Your task to perform on an android device: Check the news Image 0: 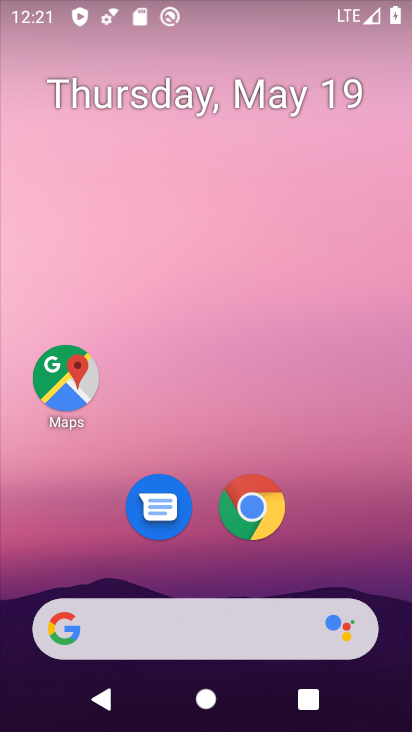
Step 0: click (192, 643)
Your task to perform on an android device: Check the news Image 1: 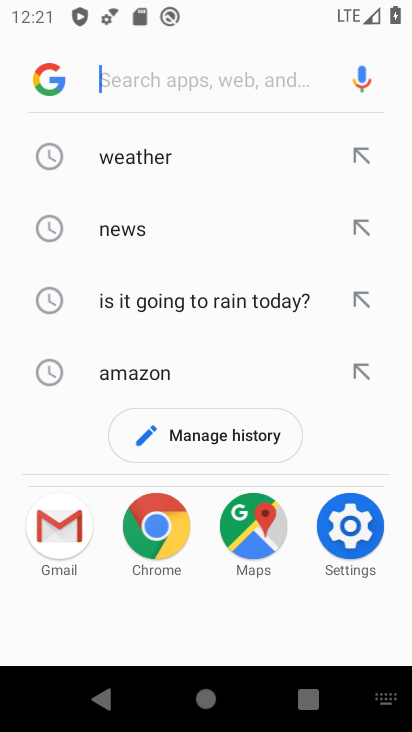
Step 1: click (147, 230)
Your task to perform on an android device: Check the news Image 2: 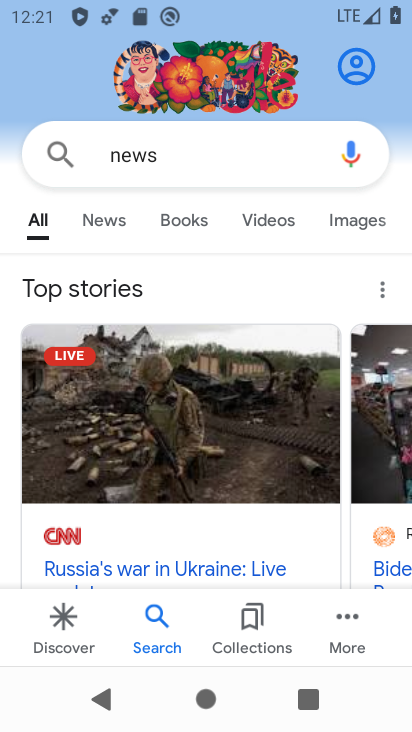
Step 2: task complete